Your task to perform on an android device: Open Maps and search for coffee Image 0: 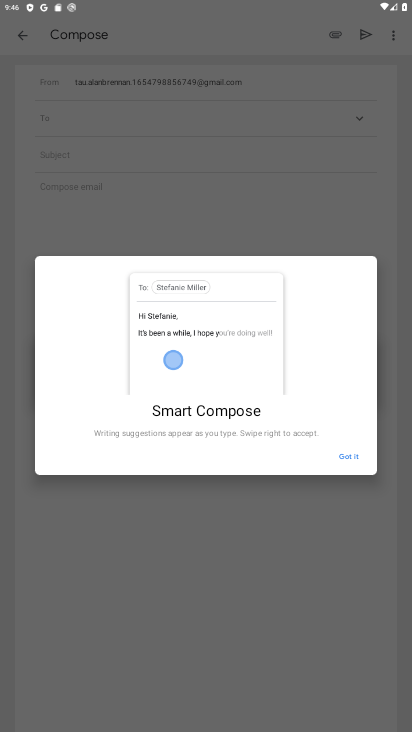
Step 0: press home button
Your task to perform on an android device: Open Maps and search for coffee Image 1: 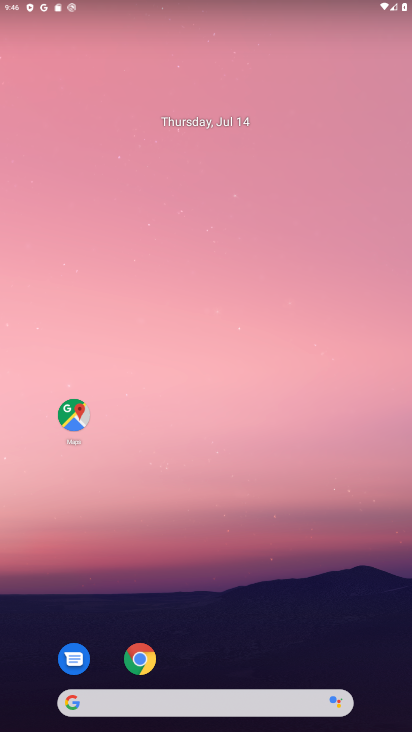
Step 1: drag from (279, 588) to (187, 120)
Your task to perform on an android device: Open Maps and search for coffee Image 2: 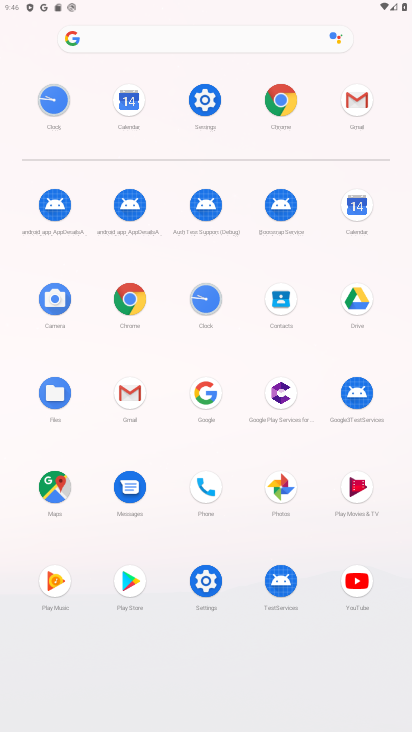
Step 2: click (55, 484)
Your task to perform on an android device: Open Maps and search for coffee Image 3: 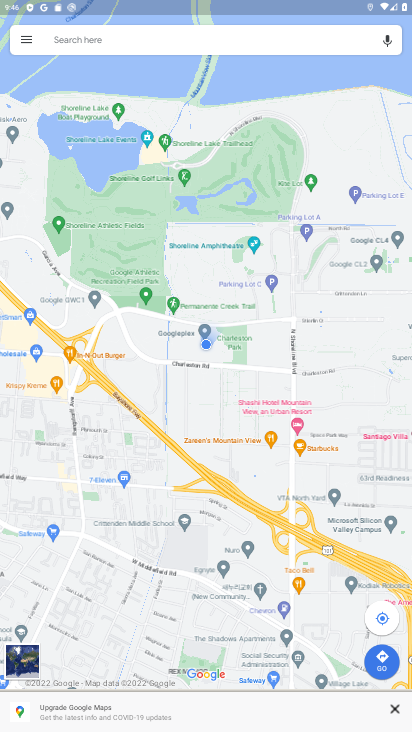
Step 3: click (219, 38)
Your task to perform on an android device: Open Maps and search for coffee Image 4: 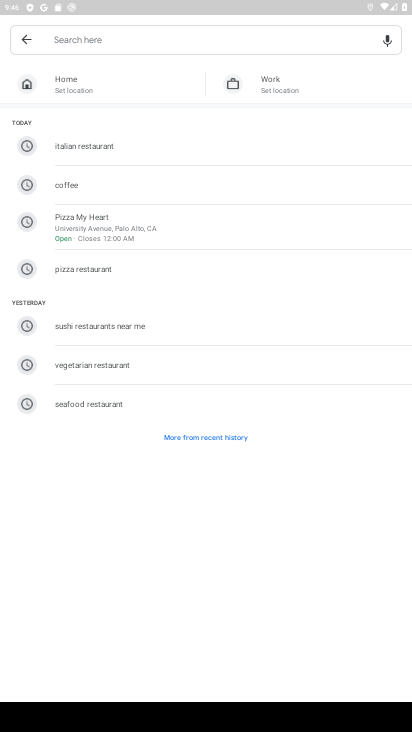
Step 4: click (62, 184)
Your task to perform on an android device: Open Maps and search for coffee Image 5: 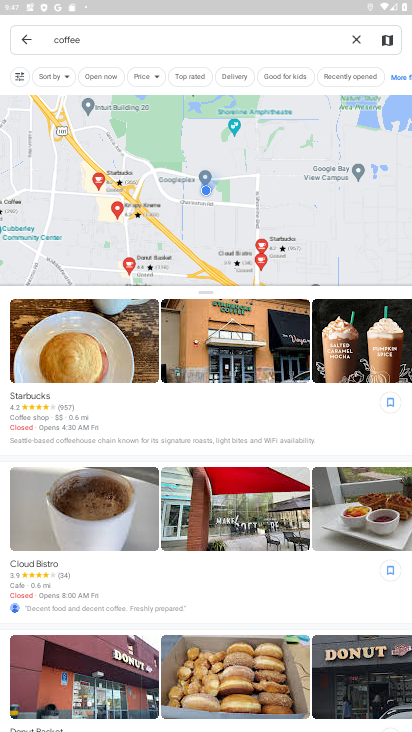
Step 5: task complete